Your task to perform on an android device: choose inbox layout in the gmail app Image 0: 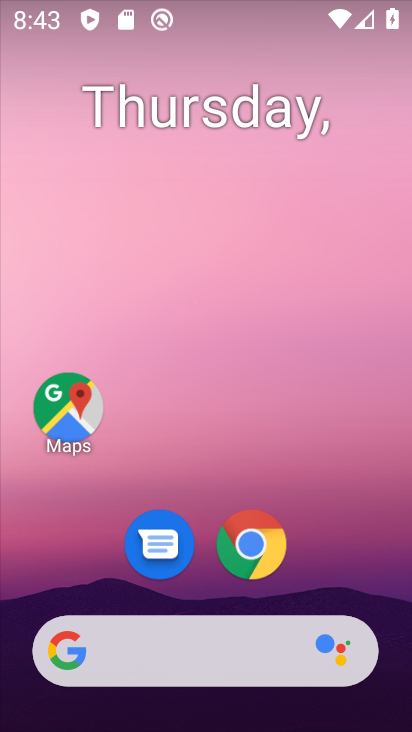
Step 0: drag from (176, 708) to (306, 51)
Your task to perform on an android device: choose inbox layout in the gmail app Image 1: 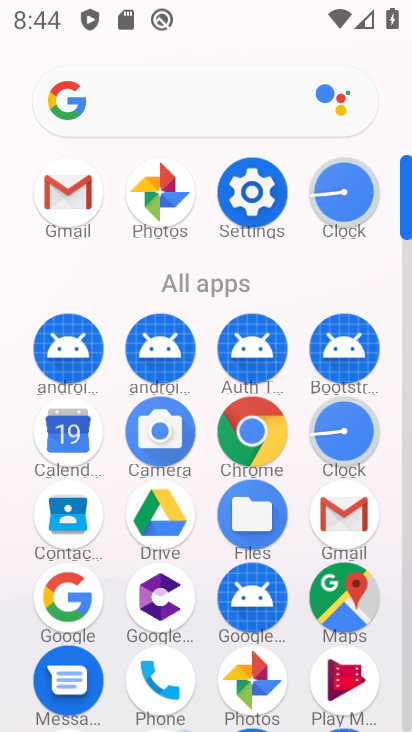
Step 1: click (64, 194)
Your task to perform on an android device: choose inbox layout in the gmail app Image 2: 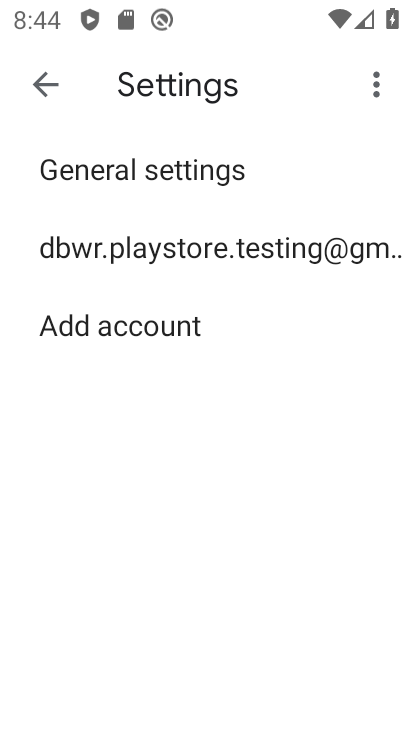
Step 2: click (42, 85)
Your task to perform on an android device: choose inbox layout in the gmail app Image 3: 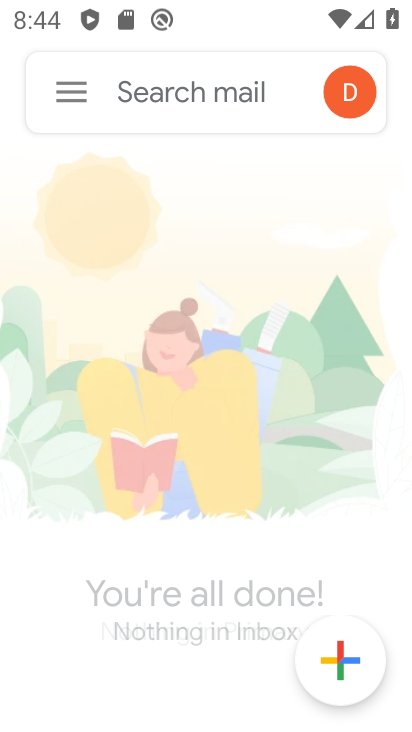
Step 3: click (65, 91)
Your task to perform on an android device: choose inbox layout in the gmail app Image 4: 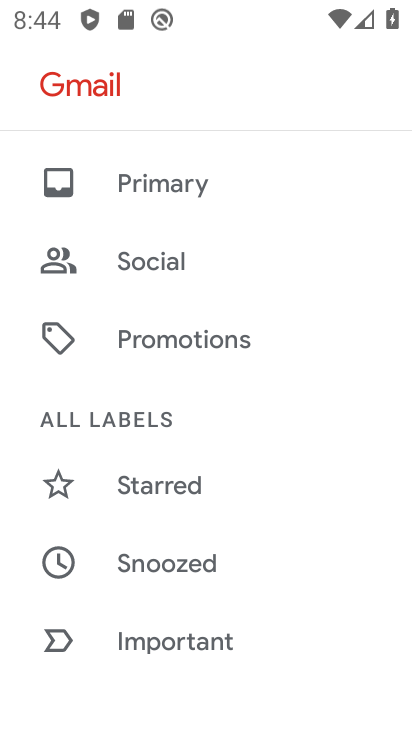
Step 4: drag from (159, 592) to (104, 23)
Your task to perform on an android device: choose inbox layout in the gmail app Image 5: 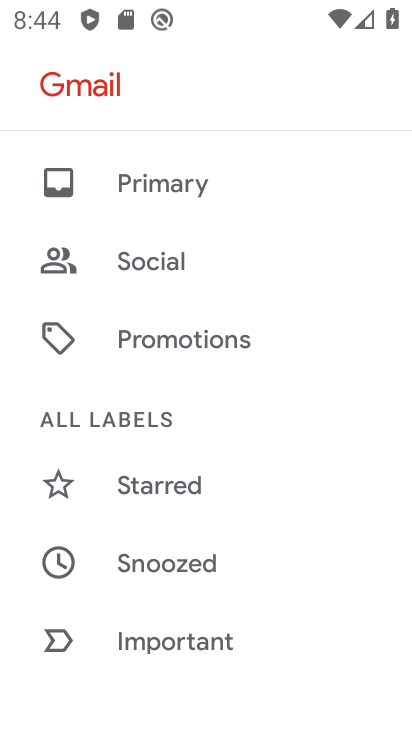
Step 5: drag from (182, 661) to (160, 79)
Your task to perform on an android device: choose inbox layout in the gmail app Image 6: 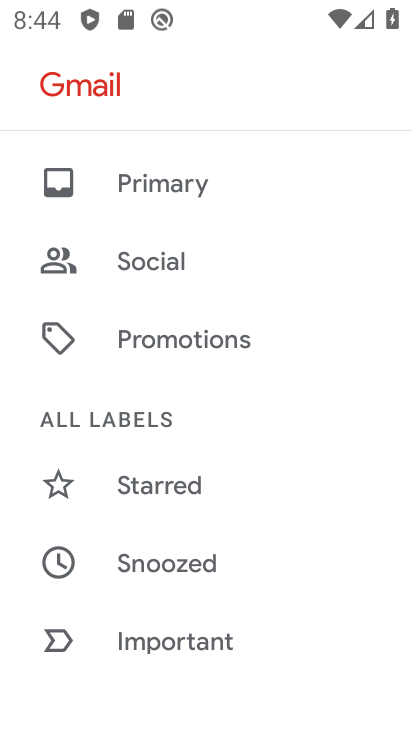
Step 6: drag from (122, 588) to (101, 5)
Your task to perform on an android device: choose inbox layout in the gmail app Image 7: 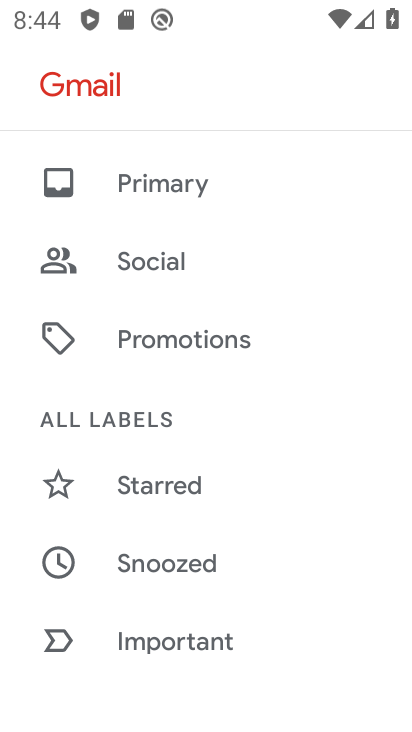
Step 7: drag from (124, 616) to (215, 21)
Your task to perform on an android device: choose inbox layout in the gmail app Image 8: 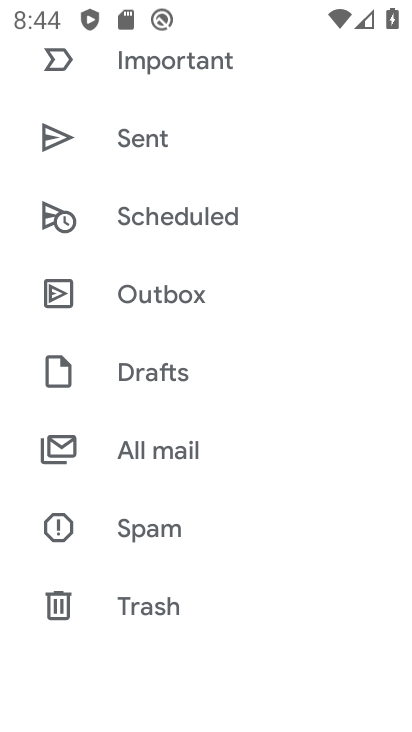
Step 8: drag from (200, 579) to (144, 77)
Your task to perform on an android device: choose inbox layout in the gmail app Image 9: 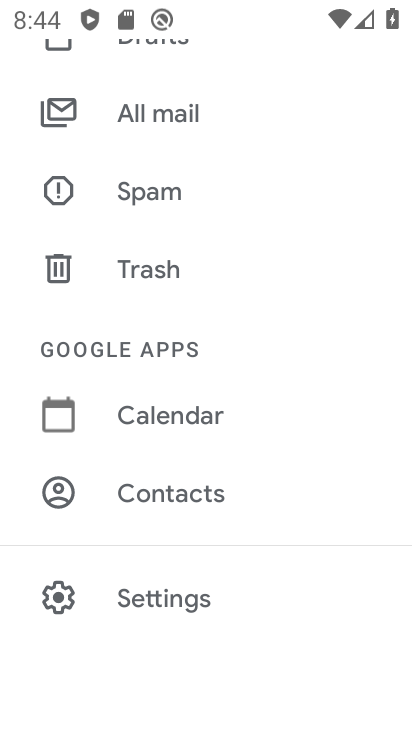
Step 9: click (154, 612)
Your task to perform on an android device: choose inbox layout in the gmail app Image 10: 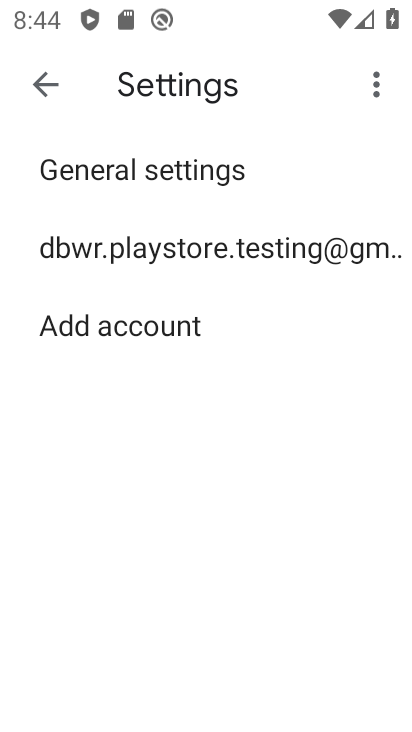
Step 10: click (234, 242)
Your task to perform on an android device: choose inbox layout in the gmail app Image 11: 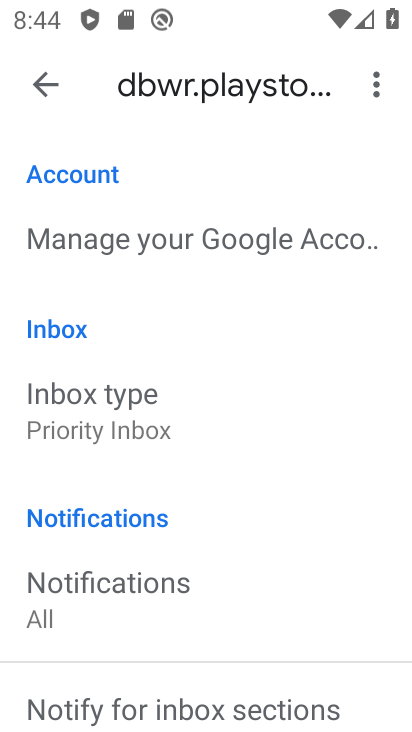
Step 11: click (131, 426)
Your task to perform on an android device: choose inbox layout in the gmail app Image 12: 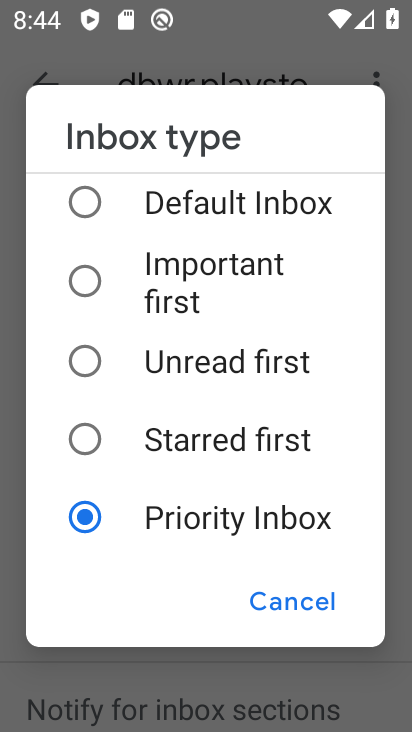
Step 12: click (240, 208)
Your task to perform on an android device: choose inbox layout in the gmail app Image 13: 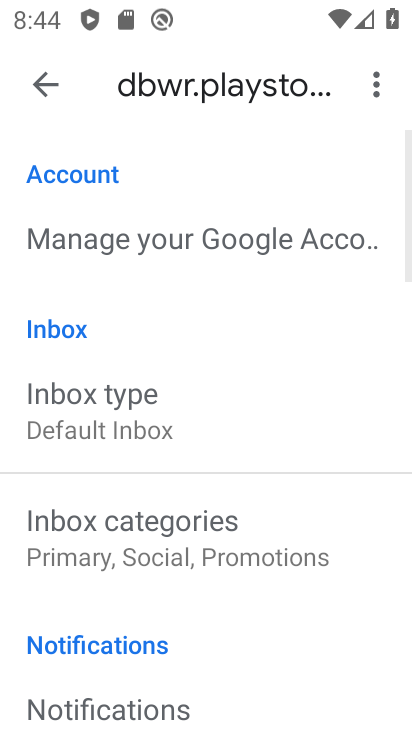
Step 13: task complete